Your task to perform on an android device: Search for Mexican restaurants on Maps Image 0: 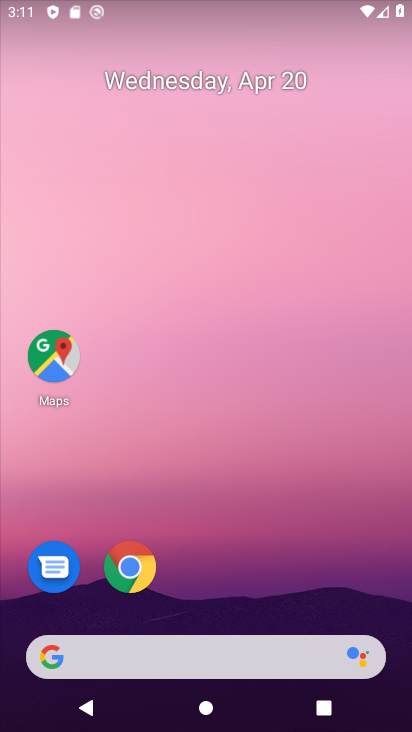
Step 0: drag from (284, 546) to (268, 214)
Your task to perform on an android device: Search for Mexican restaurants on Maps Image 1: 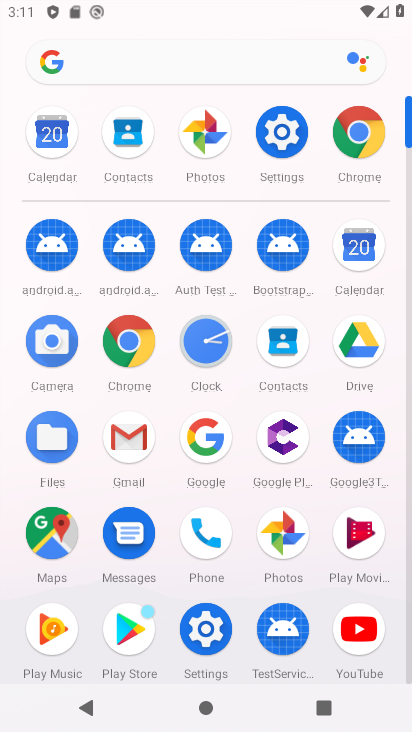
Step 1: click (54, 534)
Your task to perform on an android device: Search for Mexican restaurants on Maps Image 2: 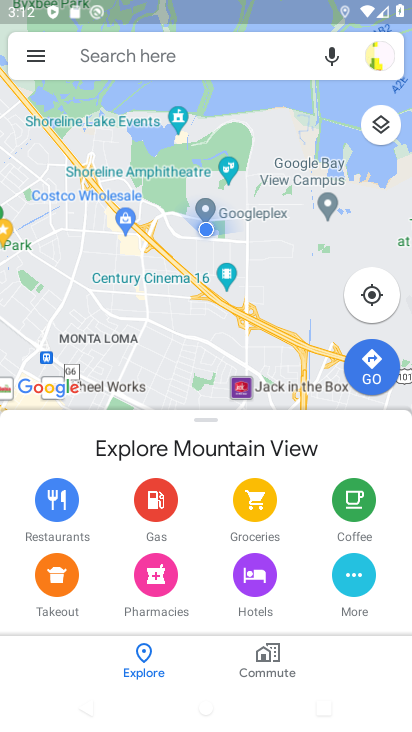
Step 2: click (178, 63)
Your task to perform on an android device: Search for Mexican restaurants on Maps Image 3: 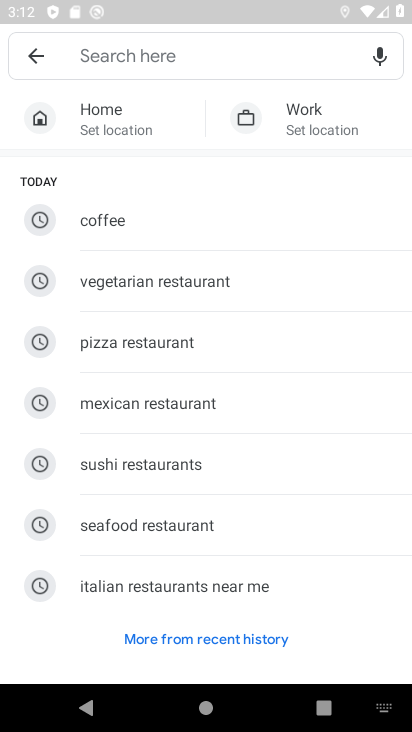
Step 3: click (295, 402)
Your task to perform on an android device: Search for Mexican restaurants on Maps Image 4: 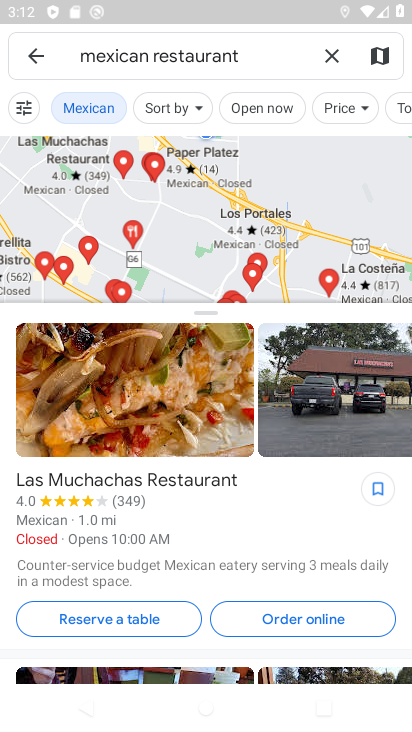
Step 4: task complete